Your task to perform on an android device: change keyboard looks Image 0: 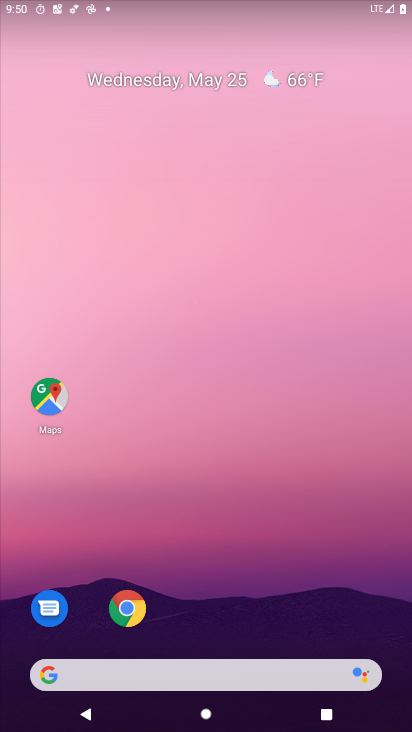
Step 0: drag from (240, 724) to (240, 165)
Your task to perform on an android device: change keyboard looks Image 1: 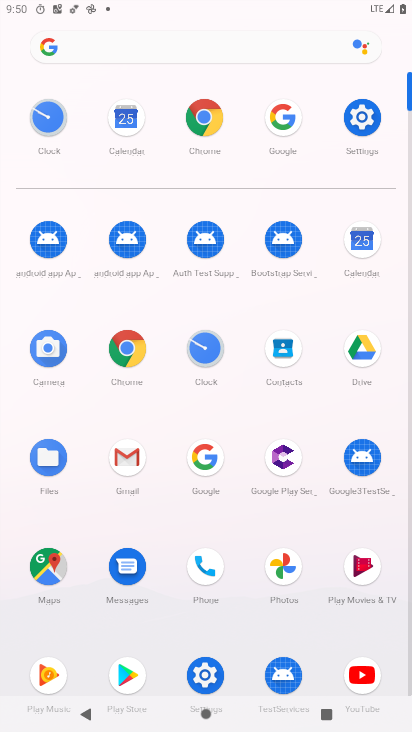
Step 1: click (368, 112)
Your task to perform on an android device: change keyboard looks Image 2: 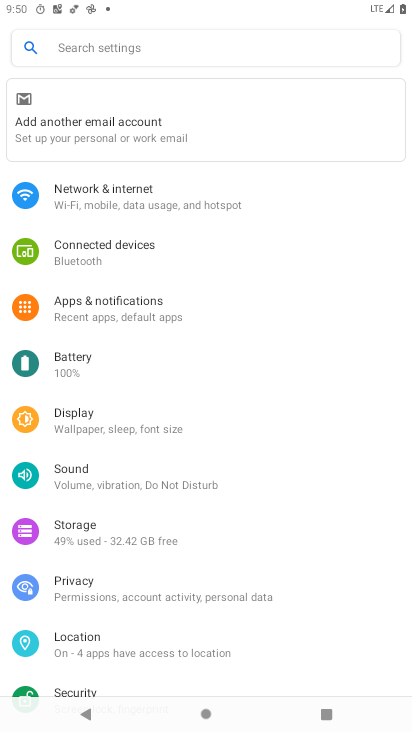
Step 2: drag from (126, 642) to (110, 504)
Your task to perform on an android device: change keyboard looks Image 3: 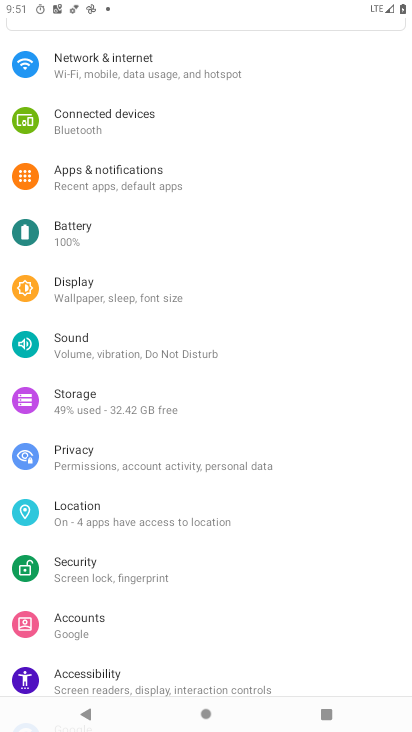
Step 3: drag from (185, 158) to (203, 409)
Your task to perform on an android device: change keyboard looks Image 4: 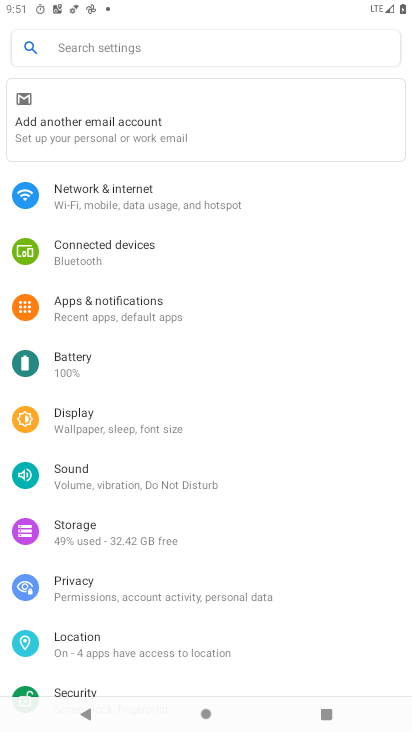
Step 4: drag from (125, 644) to (116, 288)
Your task to perform on an android device: change keyboard looks Image 5: 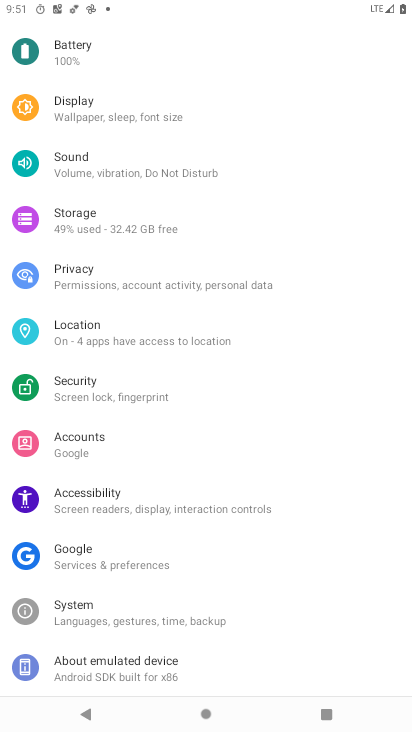
Step 5: click (102, 619)
Your task to perform on an android device: change keyboard looks Image 6: 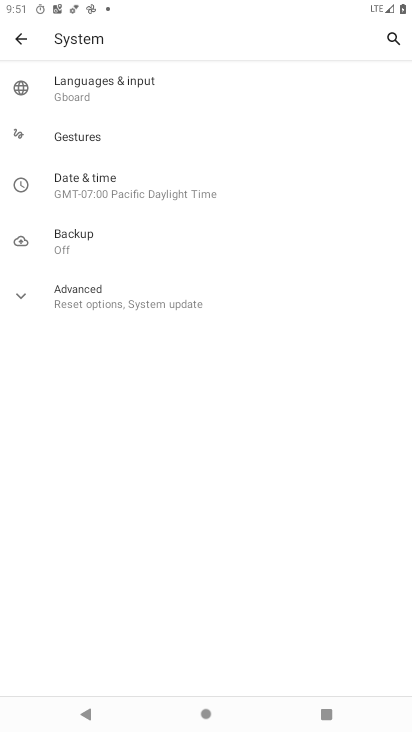
Step 6: click (79, 83)
Your task to perform on an android device: change keyboard looks Image 7: 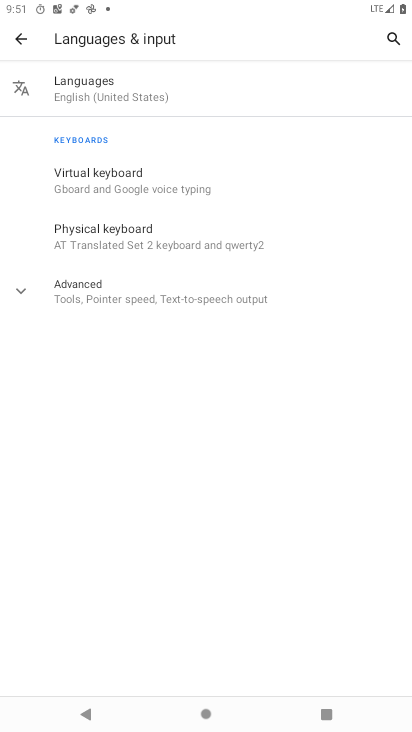
Step 7: click (110, 179)
Your task to perform on an android device: change keyboard looks Image 8: 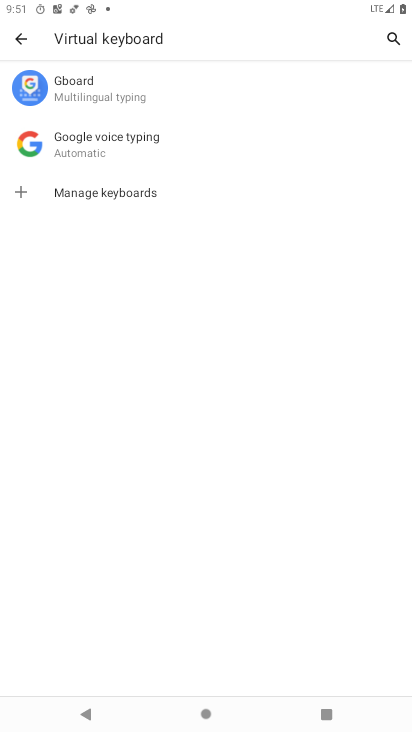
Step 8: click (80, 89)
Your task to perform on an android device: change keyboard looks Image 9: 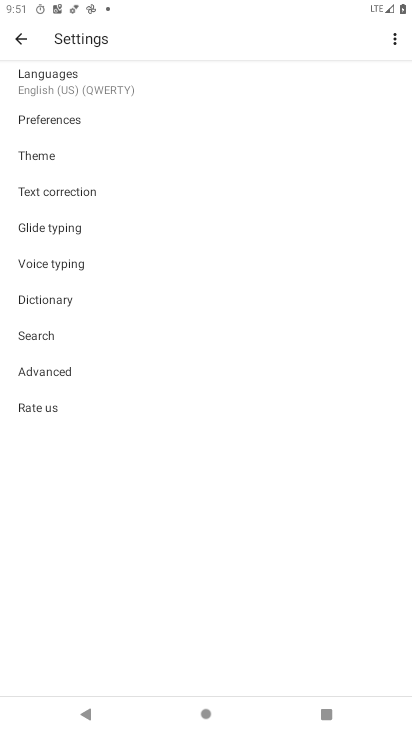
Step 9: click (37, 159)
Your task to perform on an android device: change keyboard looks Image 10: 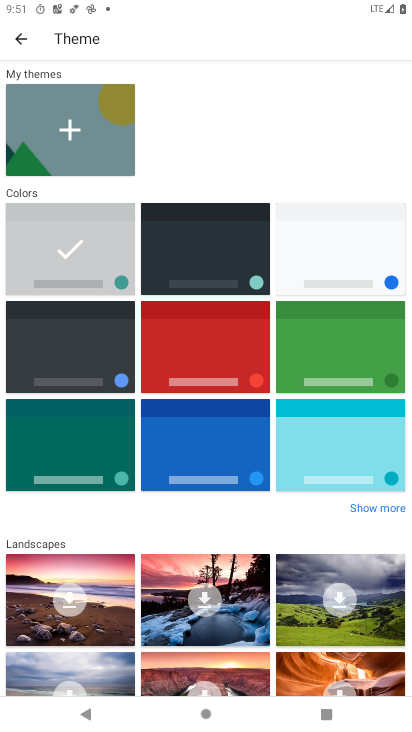
Step 10: click (221, 272)
Your task to perform on an android device: change keyboard looks Image 11: 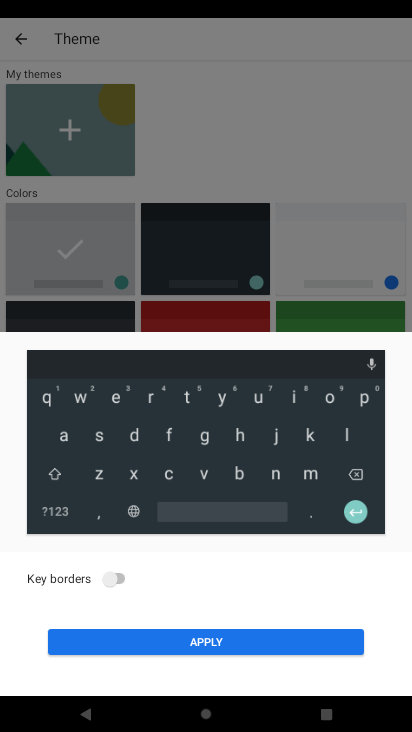
Step 11: click (122, 581)
Your task to perform on an android device: change keyboard looks Image 12: 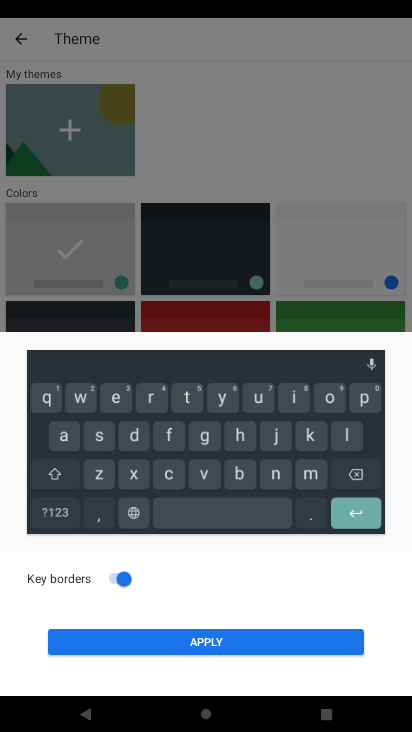
Step 12: click (217, 640)
Your task to perform on an android device: change keyboard looks Image 13: 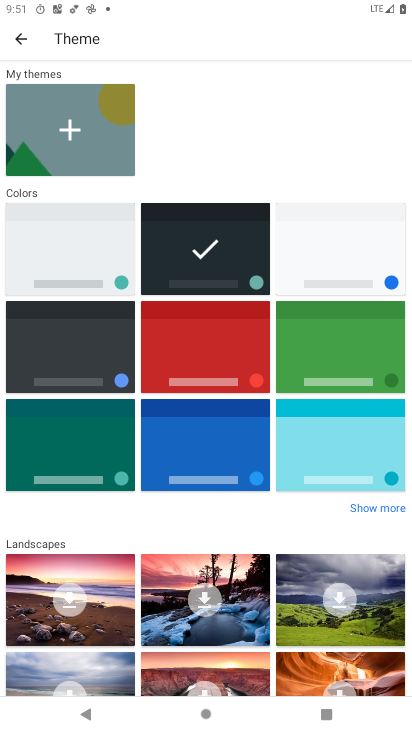
Step 13: task complete